Your task to perform on an android device: Clear the shopping cart on ebay.com. Image 0: 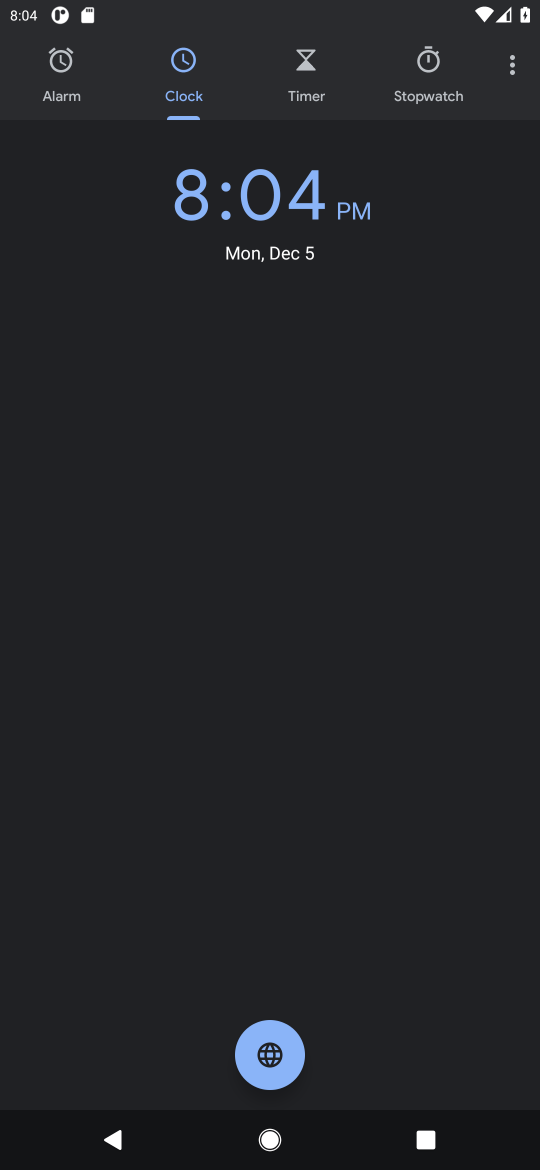
Step 0: press home button
Your task to perform on an android device: Clear the shopping cart on ebay.com. Image 1: 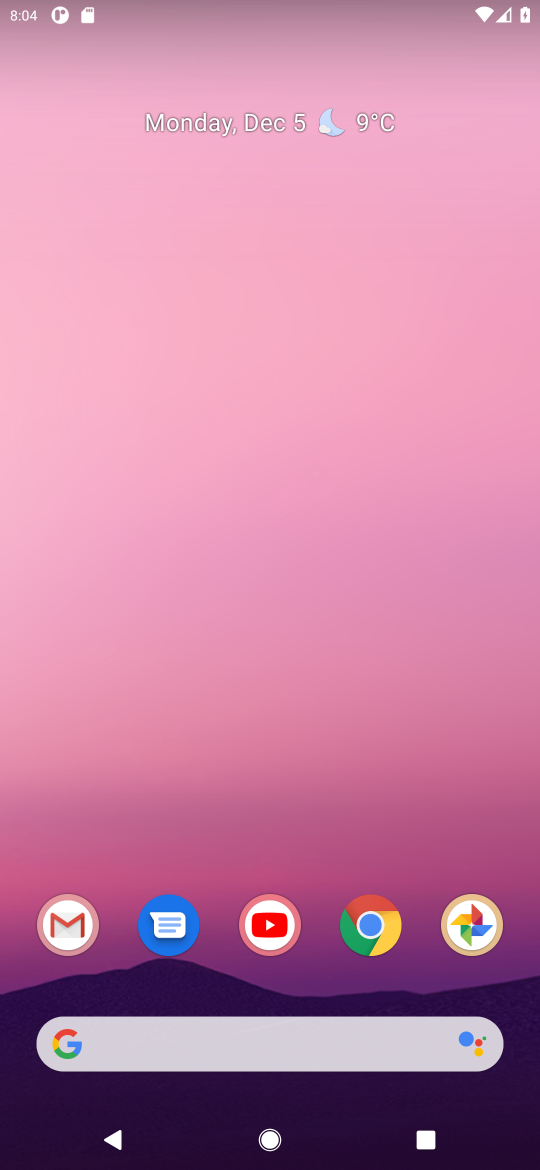
Step 1: click (375, 929)
Your task to perform on an android device: Clear the shopping cart on ebay.com. Image 2: 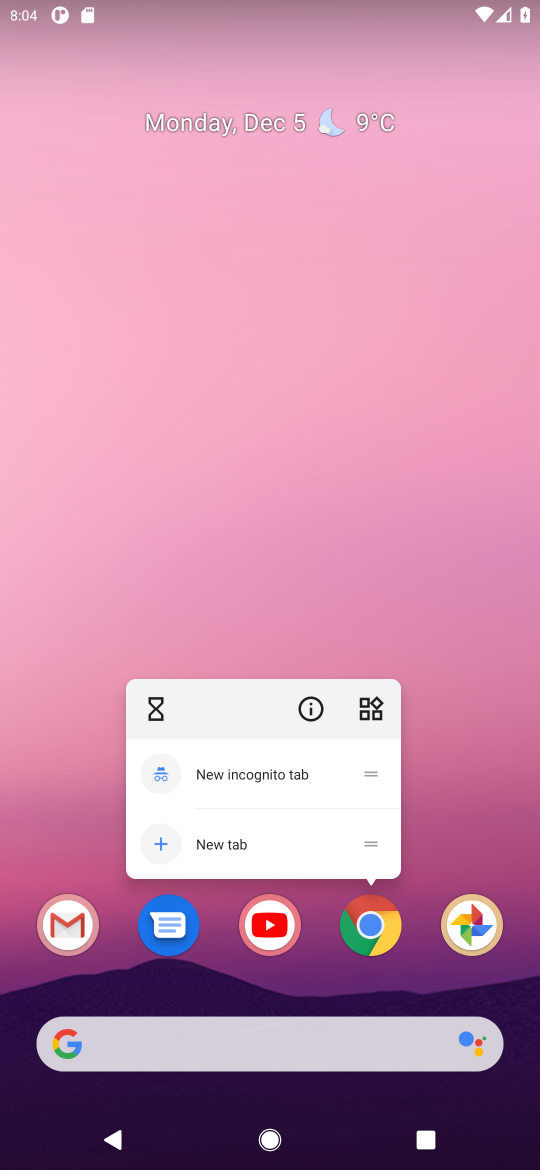
Step 2: click (375, 929)
Your task to perform on an android device: Clear the shopping cart on ebay.com. Image 3: 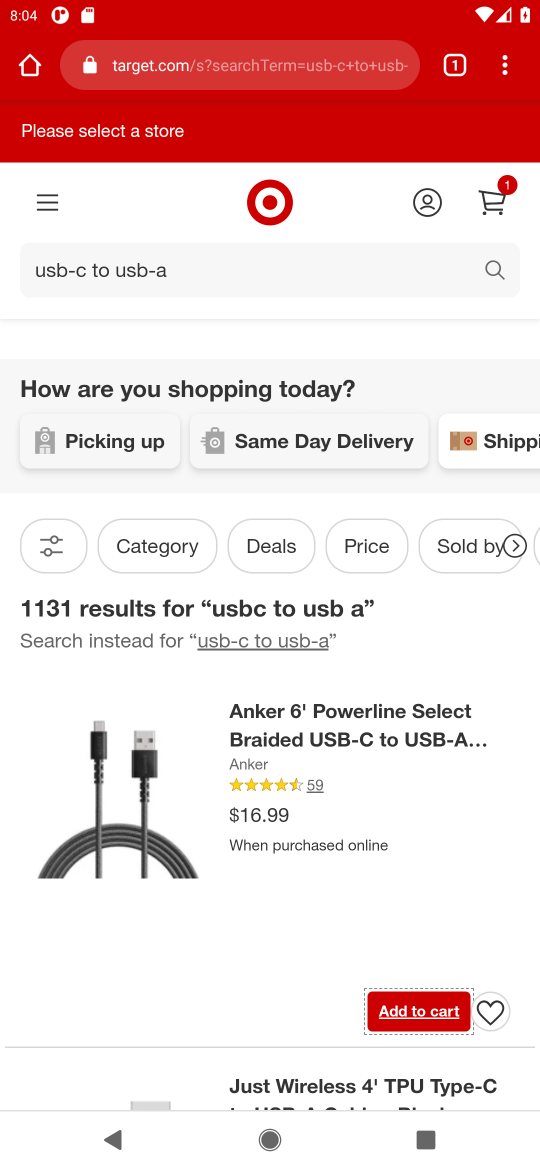
Step 3: click (186, 69)
Your task to perform on an android device: Clear the shopping cart on ebay.com. Image 4: 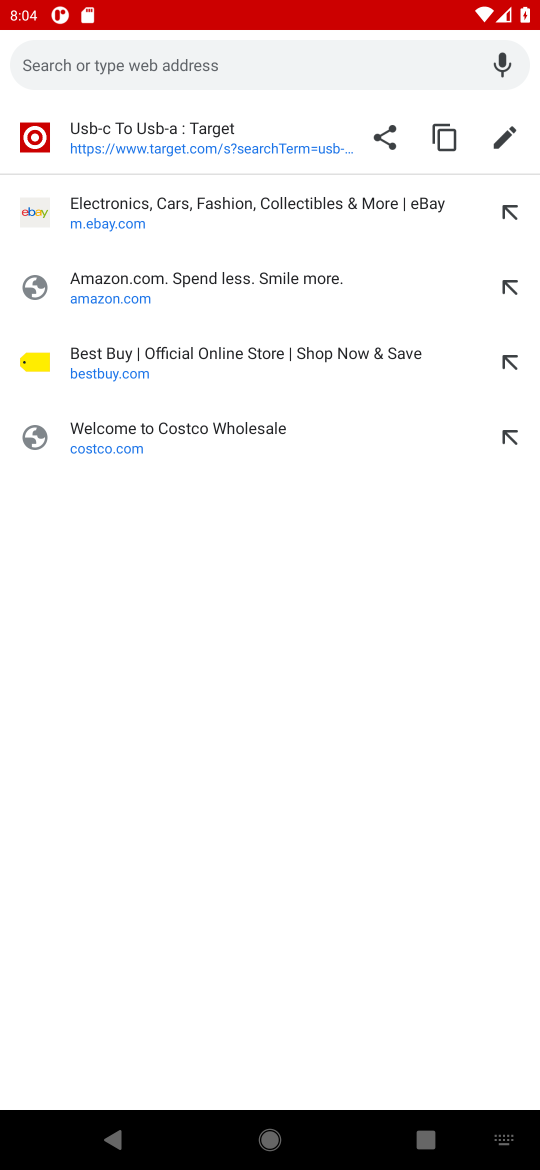
Step 4: click (87, 218)
Your task to perform on an android device: Clear the shopping cart on ebay.com. Image 5: 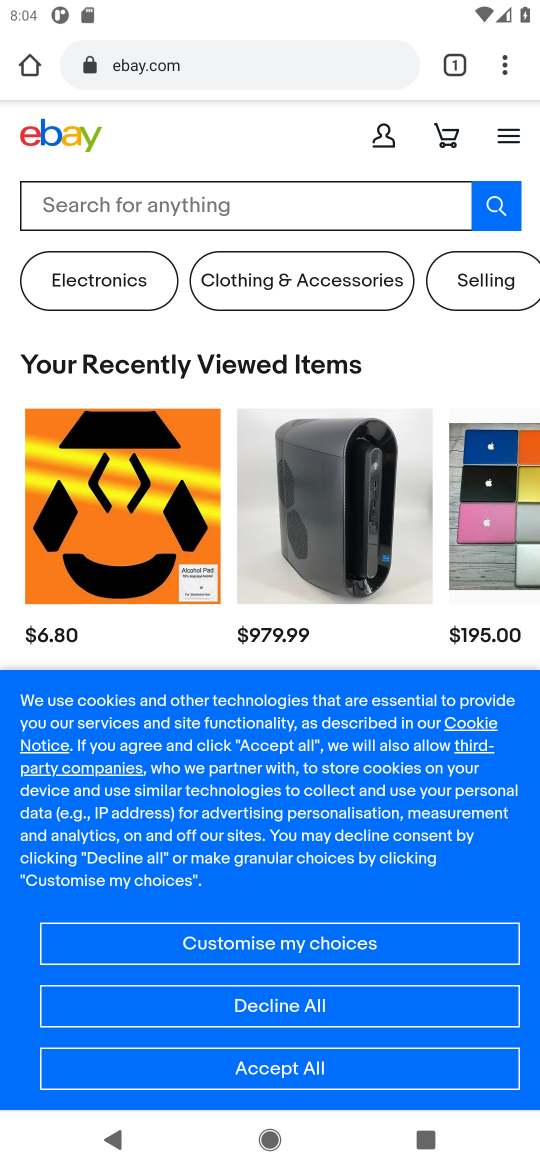
Step 5: click (445, 139)
Your task to perform on an android device: Clear the shopping cart on ebay.com. Image 6: 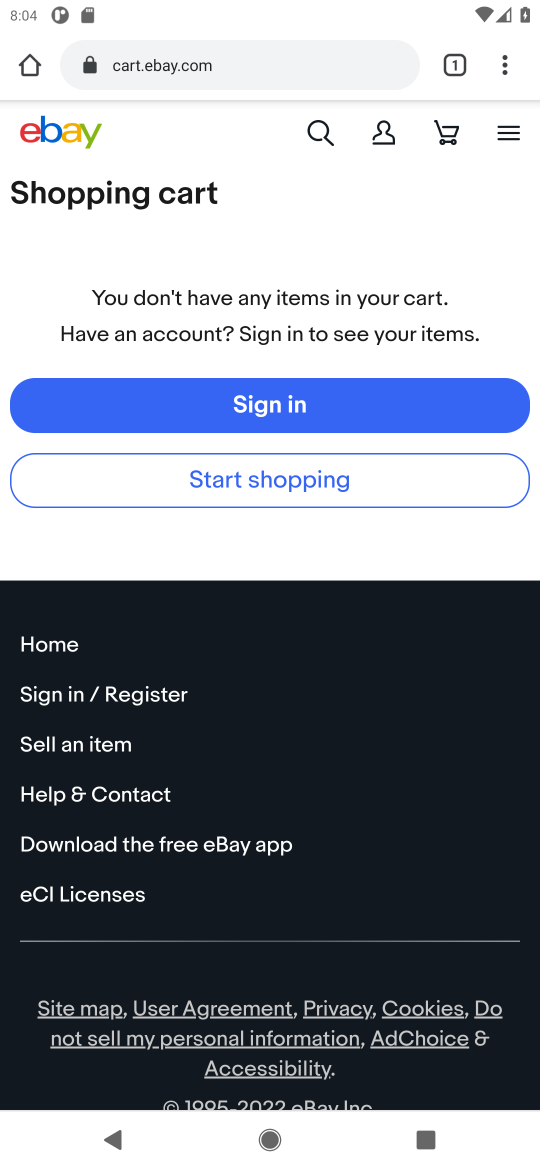
Step 6: task complete